Your task to perform on an android device: open sync settings in chrome Image 0: 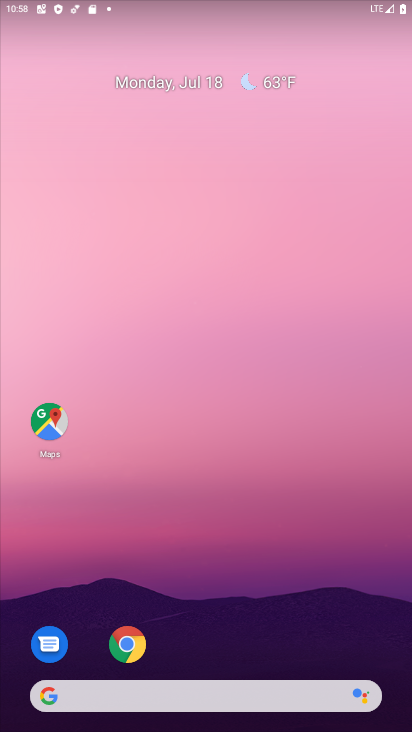
Step 0: click (119, 641)
Your task to perform on an android device: open sync settings in chrome Image 1: 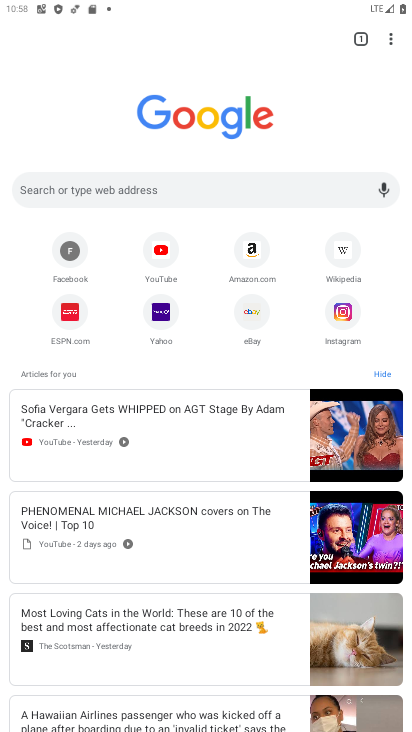
Step 1: click (399, 38)
Your task to perform on an android device: open sync settings in chrome Image 2: 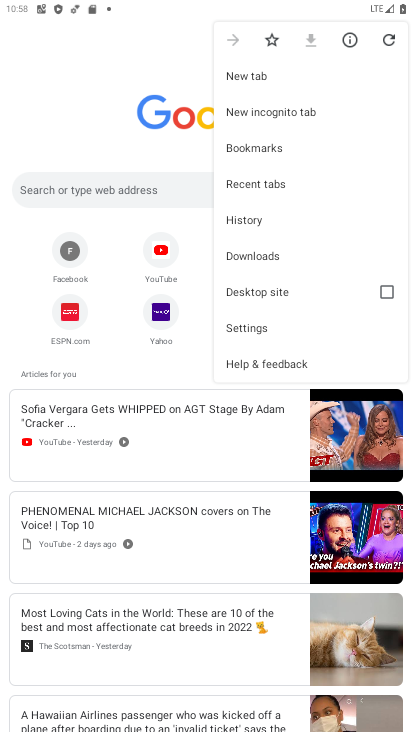
Step 2: click (273, 329)
Your task to perform on an android device: open sync settings in chrome Image 3: 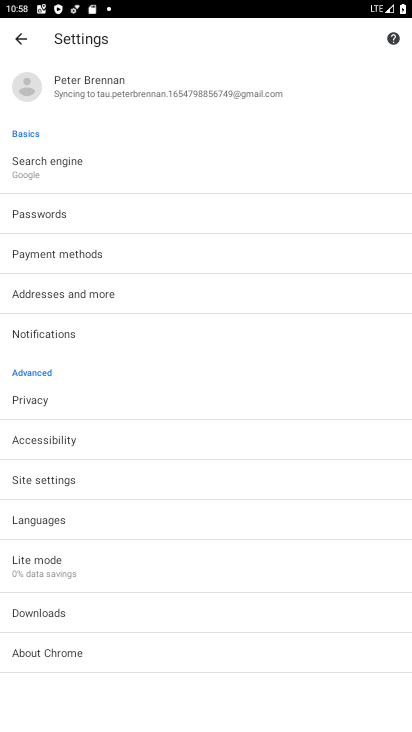
Step 3: click (202, 94)
Your task to perform on an android device: open sync settings in chrome Image 4: 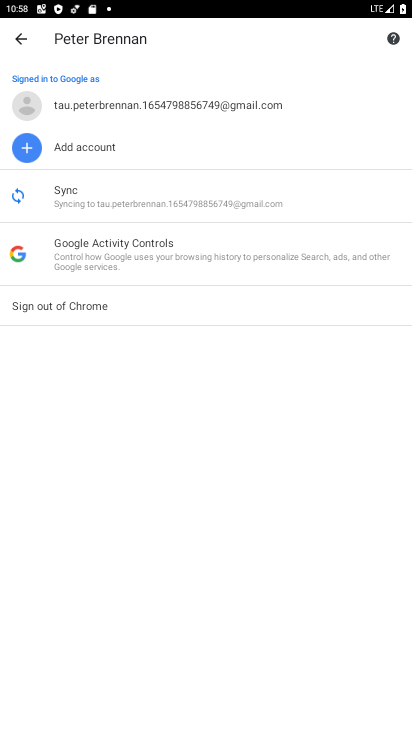
Step 4: click (136, 207)
Your task to perform on an android device: open sync settings in chrome Image 5: 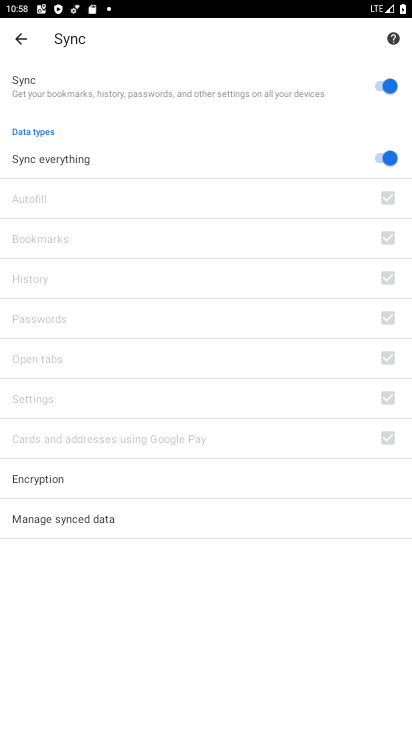
Step 5: task complete